Your task to perform on an android device: open chrome privacy settings Image 0: 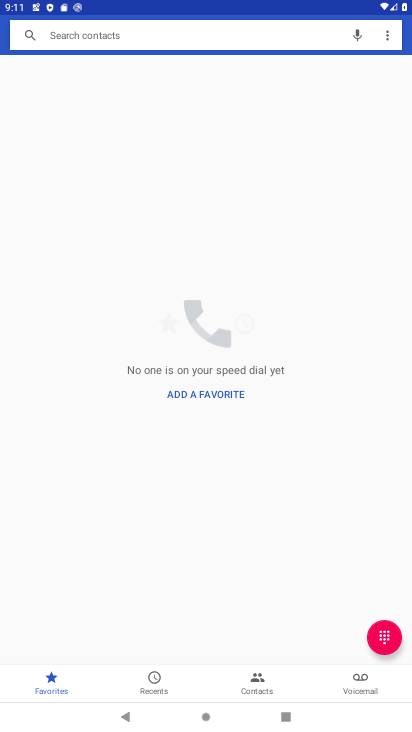
Step 0: press home button
Your task to perform on an android device: open chrome privacy settings Image 1: 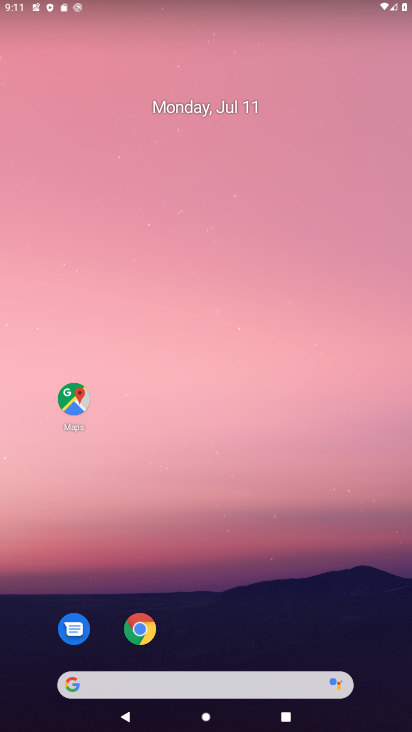
Step 1: click (132, 628)
Your task to perform on an android device: open chrome privacy settings Image 2: 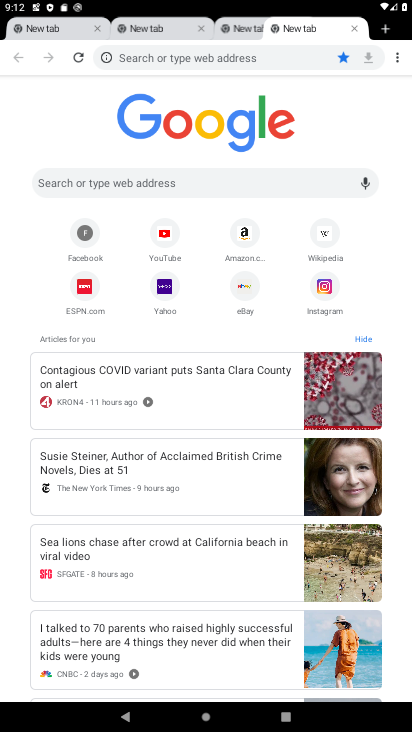
Step 2: click (387, 51)
Your task to perform on an android device: open chrome privacy settings Image 3: 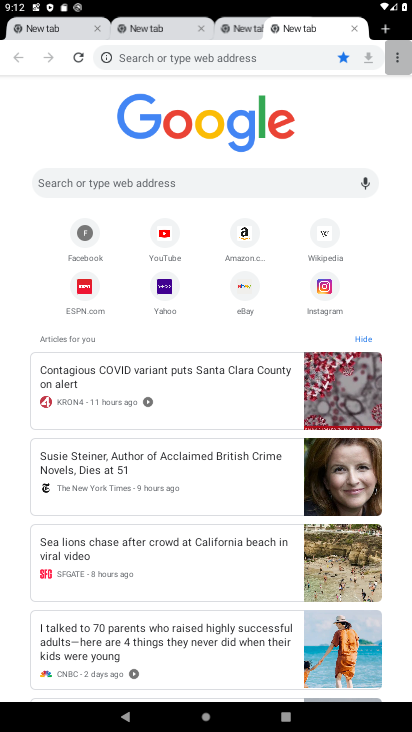
Step 3: click (393, 56)
Your task to perform on an android device: open chrome privacy settings Image 4: 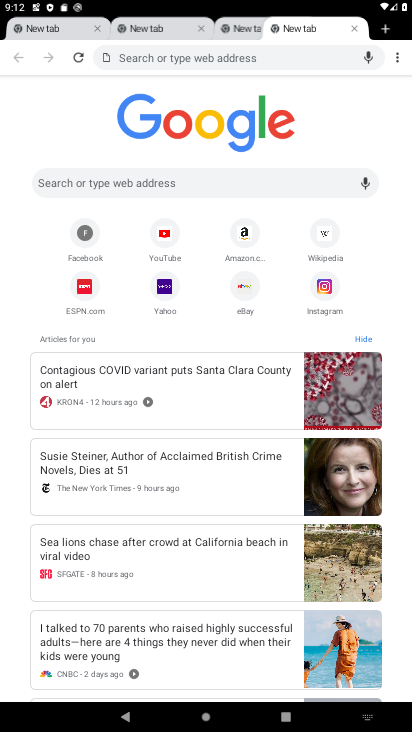
Step 4: click (393, 53)
Your task to perform on an android device: open chrome privacy settings Image 5: 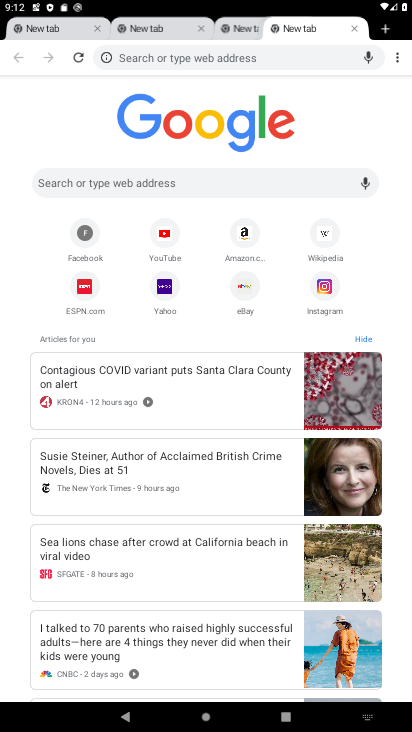
Step 5: click (399, 53)
Your task to perform on an android device: open chrome privacy settings Image 6: 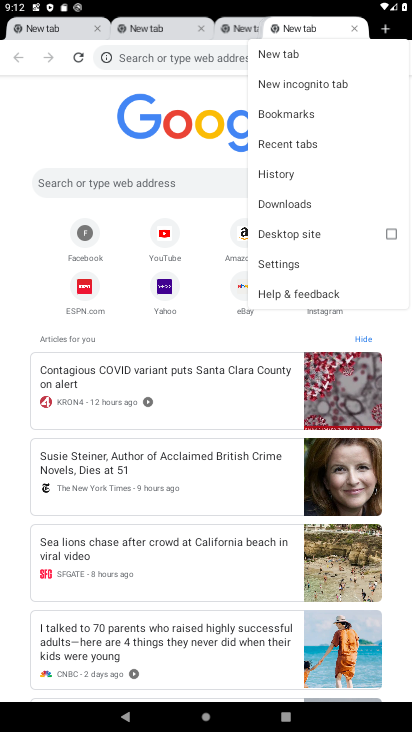
Step 6: click (270, 256)
Your task to perform on an android device: open chrome privacy settings Image 7: 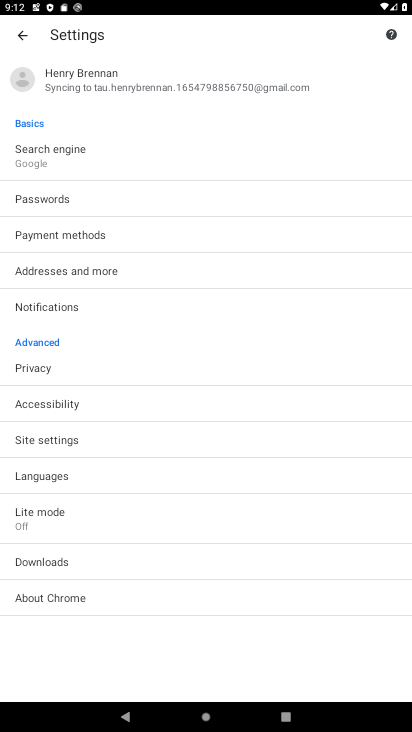
Step 7: click (28, 375)
Your task to perform on an android device: open chrome privacy settings Image 8: 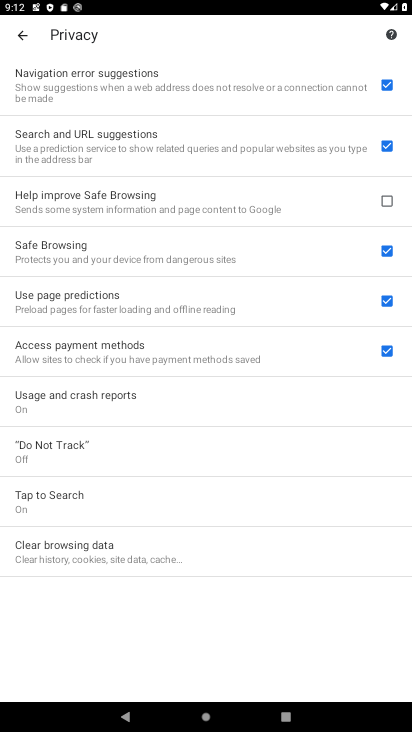
Step 8: task complete